Your task to perform on an android device: open app "Venmo" (install if not already installed) Image 0: 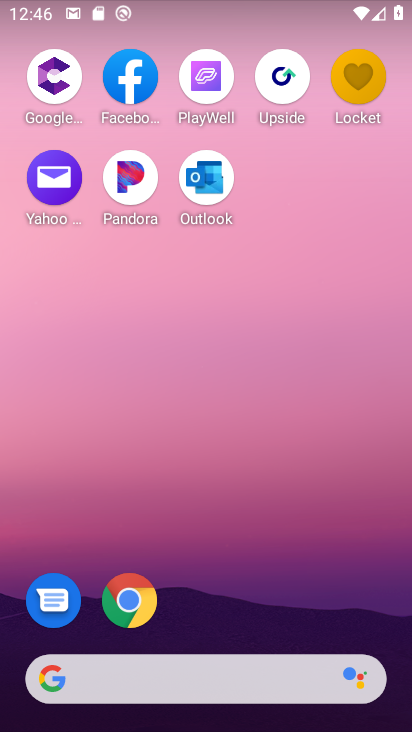
Step 0: drag from (243, 625) to (250, 262)
Your task to perform on an android device: open app "Venmo" (install if not already installed) Image 1: 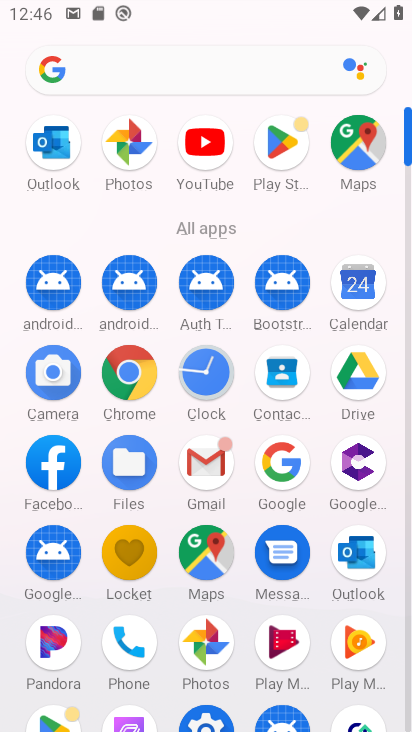
Step 1: click (304, 154)
Your task to perform on an android device: open app "Venmo" (install if not already installed) Image 2: 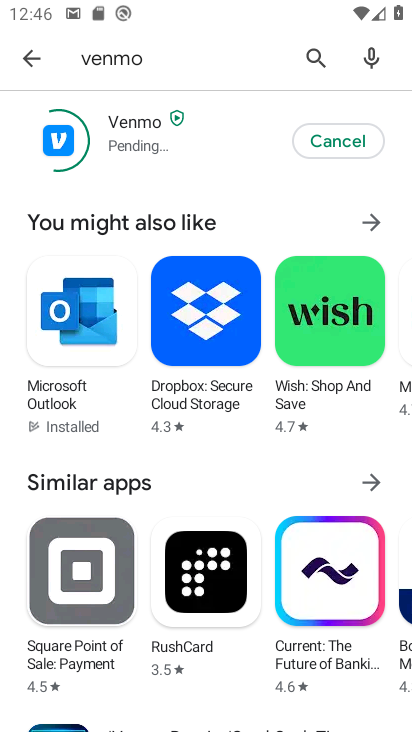
Step 2: task complete